Your task to perform on an android device: Go to sound settings Image 0: 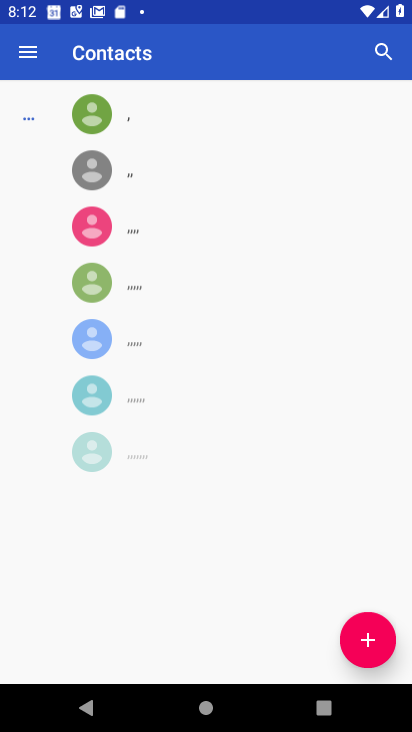
Step 0: drag from (215, 618) to (196, 270)
Your task to perform on an android device: Go to sound settings Image 1: 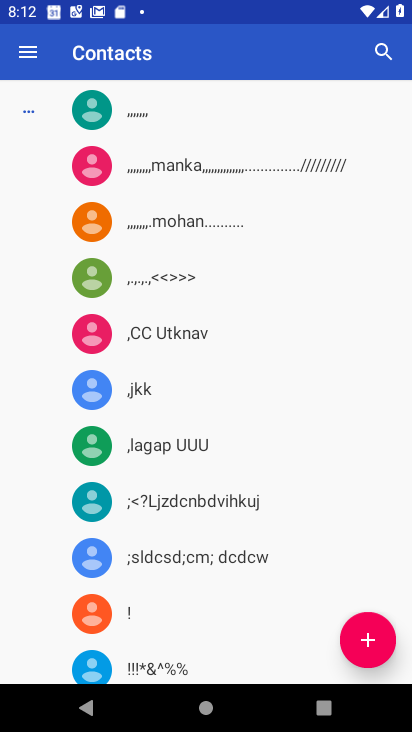
Step 1: drag from (191, 534) to (263, 284)
Your task to perform on an android device: Go to sound settings Image 2: 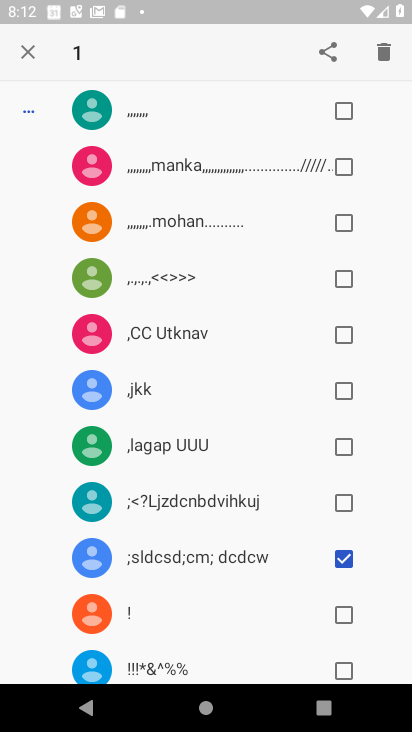
Step 2: press home button
Your task to perform on an android device: Go to sound settings Image 3: 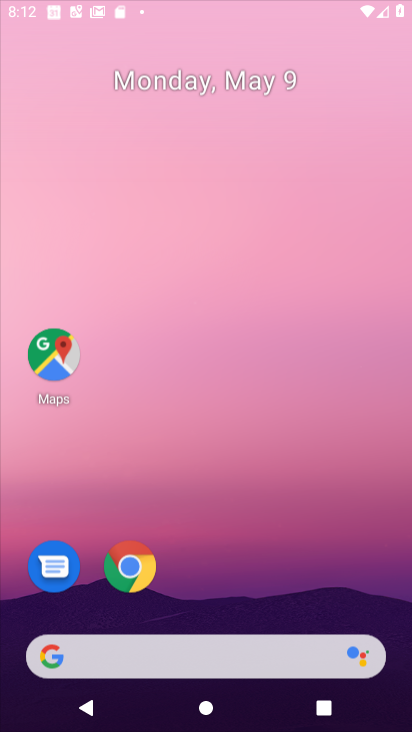
Step 3: drag from (248, 577) to (282, 329)
Your task to perform on an android device: Go to sound settings Image 4: 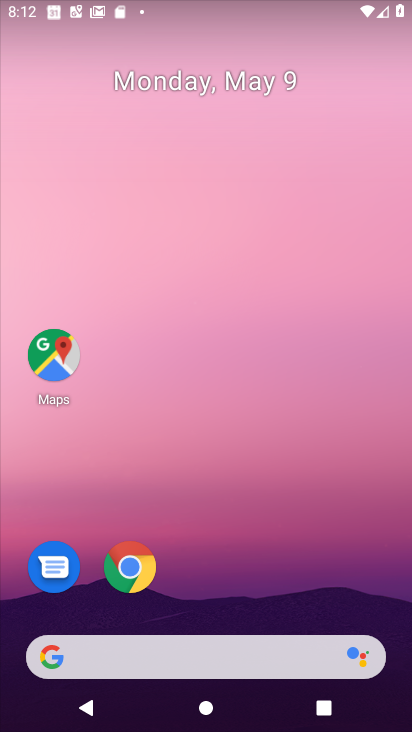
Step 4: drag from (206, 588) to (302, 222)
Your task to perform on an android device: Go to sound settings Image 5: 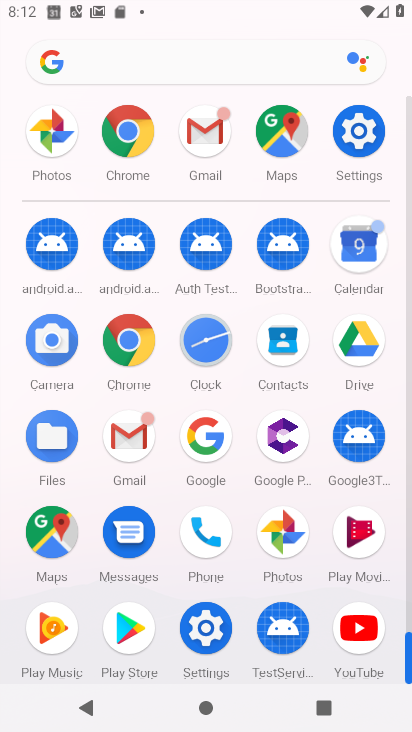
Step 5: click (219, 635)
Your task to perform on an android device: Go to sound settings Image 6: 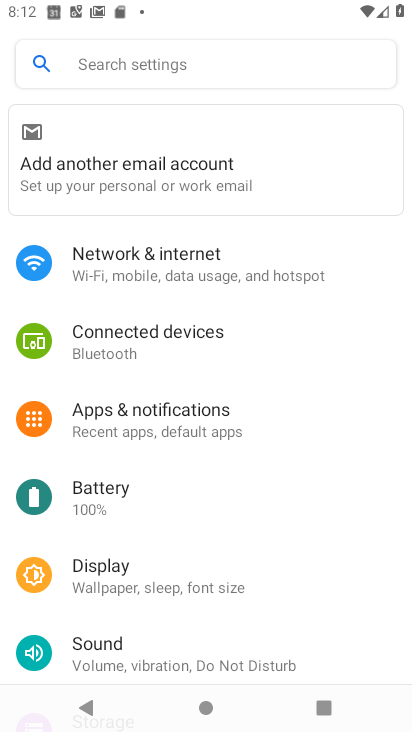
Step 6: drag from (213, 657) to (324, 303)
Your task to perform on an android device: Go to sound settings Image 7: 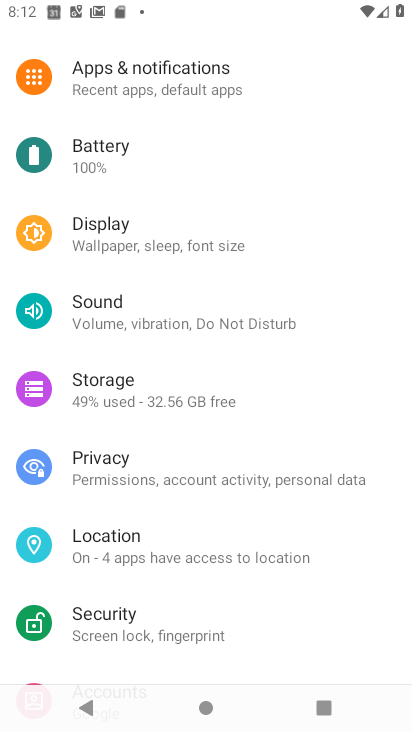
Step 7: click (175, 327)
Your task to perform on an android device: Go to sound settings Image 8: 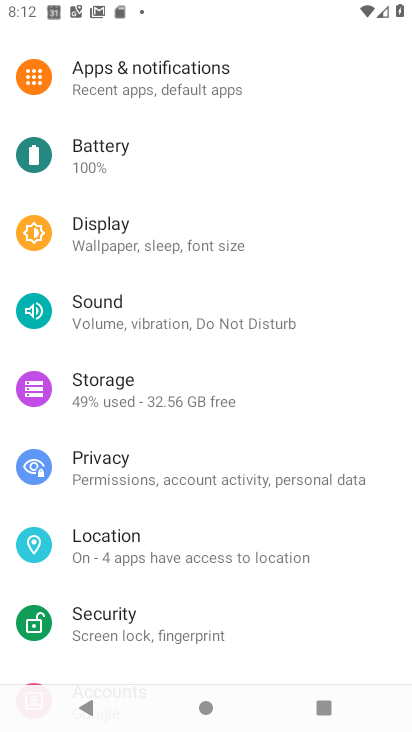
Step 8: click (175, 327)
Your task to perform on an android device: Go to sound settings Image 9: 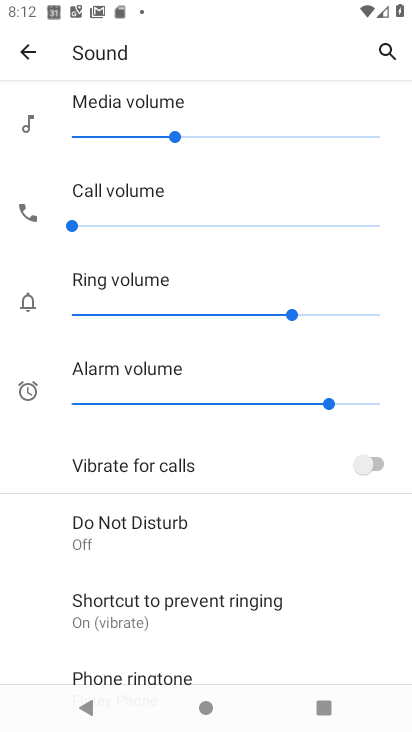
Step 9: task complete